Your task to perform on an android device: open app "Roku - Official Remote Control" Image 0: 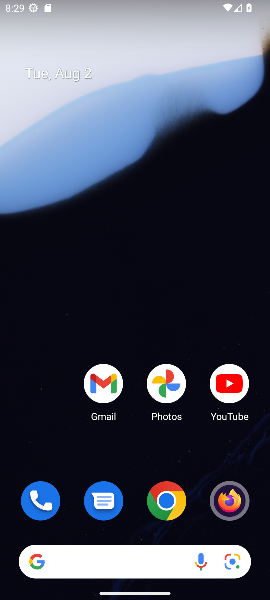
Step 0: drag from (132, 526) to (144, 136)
Your task to perform on an android device: open app "Roku - Official Remote Control" Image 1: 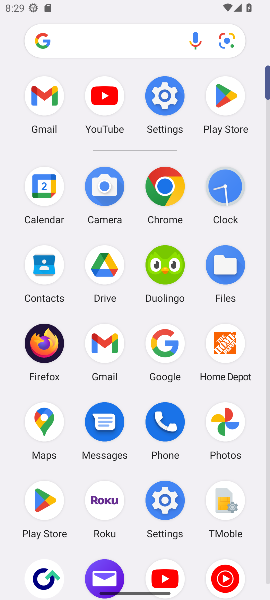
Step 1: click (219, 86)
Your task to perform on an android device: open app "Roku - Official Remote Control" Image 2: 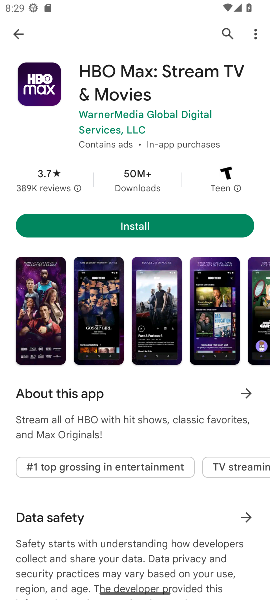
Step 2: click (229, 37)
Your task to perform on an android device: open app "Roku - Official Remote Control" Image 3: 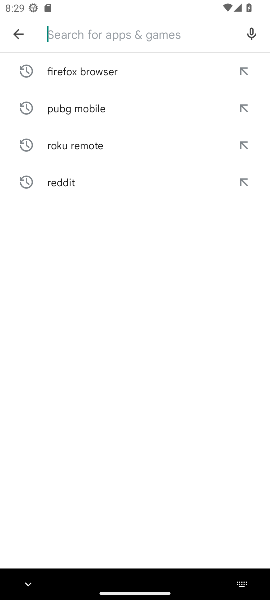
Step 3: type "Roku"
Your task to perform on an android device: open app "Roku - Official Remote Control" Image 4: 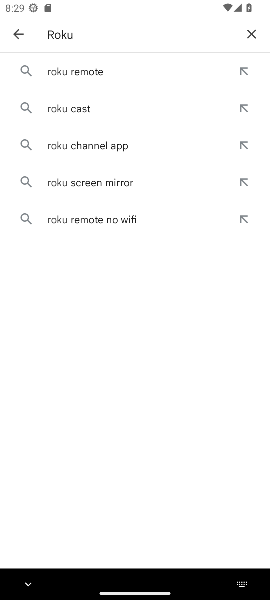
Step 4: click (51, 80)
Your task to perform on an android device: open app "Roku - Official Remote Control" Image 5: 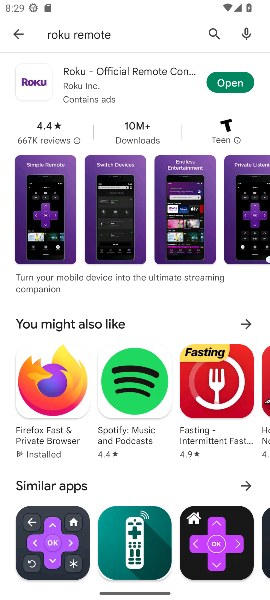
Step 5: click (75, 87)
Your task to perform on an android device: open app "Roku - Official Remote Control" Image 6: 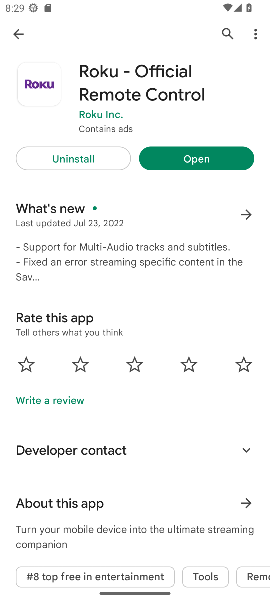
Step 6: click (196, 146)
Your task to perform on an android device: open app "Roku - Official Remote Control" Image 7: 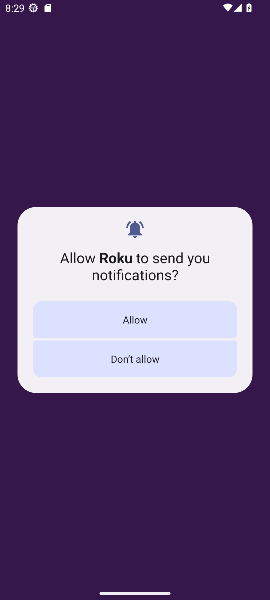
Step 7: task complete